Your task to perform on an android device: install app "Lyft - Rideshare, Bikes, Scooters & Transit" Image 0: 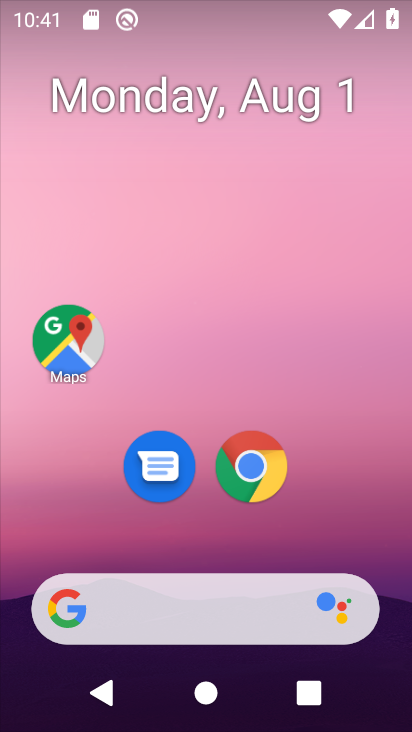
Step 0: drag from (241, 687) to (240, 294)
Your task to perform on an android device: install app "Lyft - Rideshare, Bikes, Scooters & Transit" Image 1: 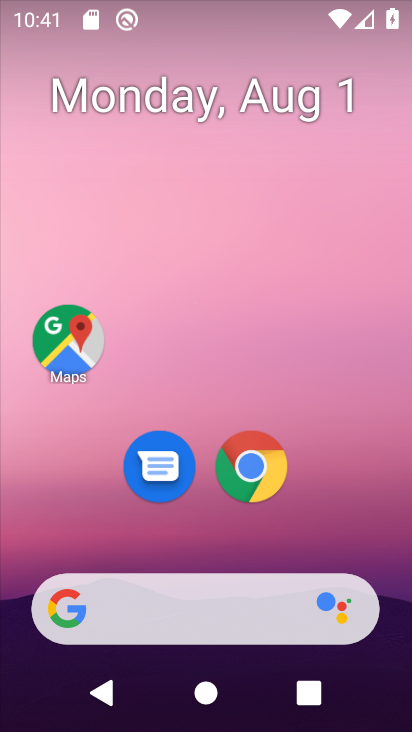
Step 1: drag from (235, 703) to (237, 53)
Your task to perform on an android device: install app "Lyft - Rideshare, Bikes, Scooters & Transit" Image 2: 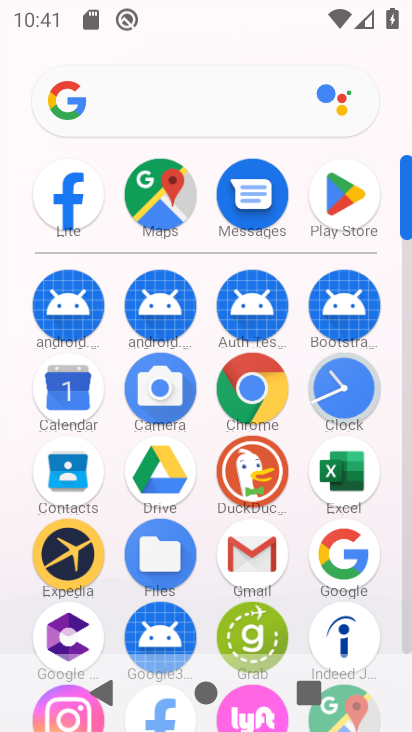
Step 2: click (351, 204)
Your task to perform on an android device: install app "Lyft - Rideshare, Bikes, Scooters & Transit" Image 3: 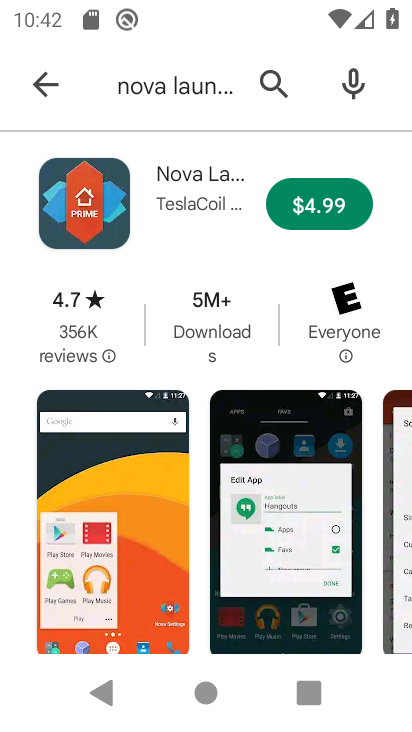
Step 3: click (272, 83)
Your task to perform on an android device: install app "Lyft - Rideshare, Bikes, Scooters & Transit" Image 4: 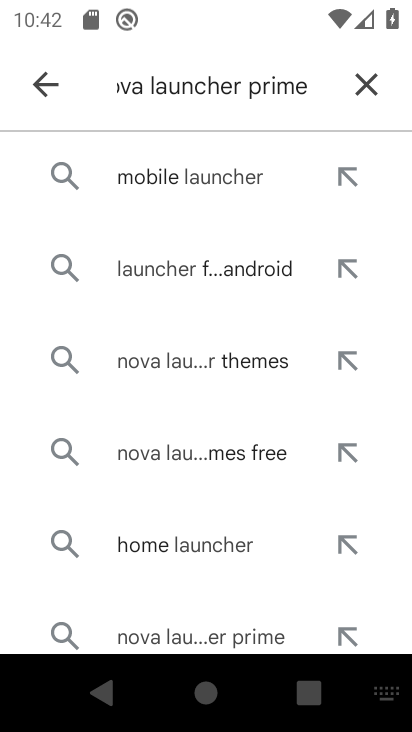
Step 4: click (365, 66)
Your task to perform on an android device: install app "Lyft - Rideshare, Bikes, Scooters & Transit" Image 5: 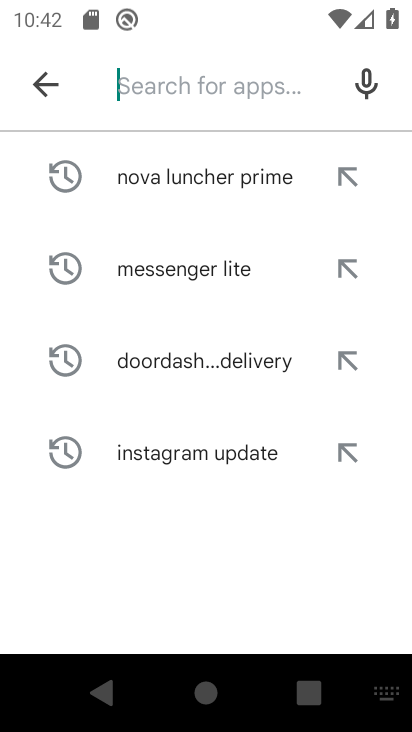
Step 5: type "Lyft - Rideshare, Bikes, Scooters & Transit"
Your task to perform on an android device: install app "Lyft - Rideshare, Bikes, Scooters & Transit" Image 6: 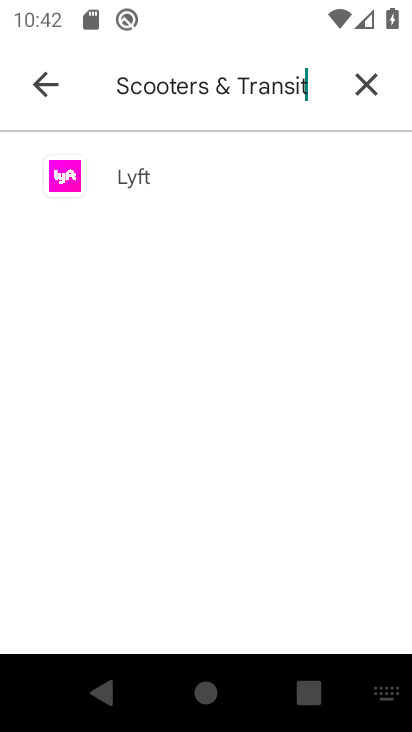
Step 6: type ""
Your task to perform on an android device: install app "Lyft - Rideshare, Bikes, Scooters & Transit" Image 7: 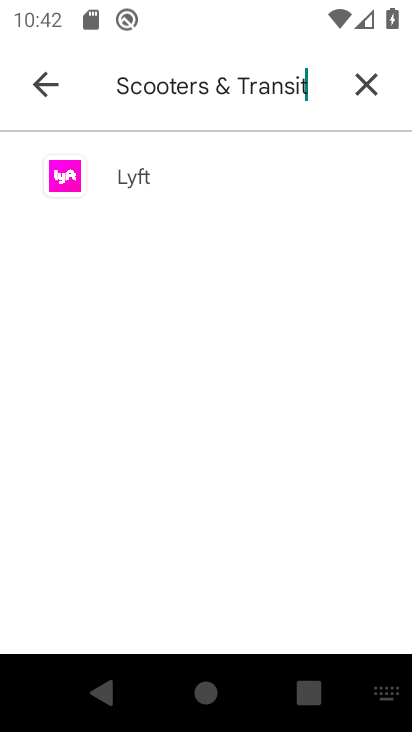
Step 7: click (129, 175)
Your task to perform on an android device: install app "Lyft - Rideshare, Bikes, Scooters & Transit" Image 8: 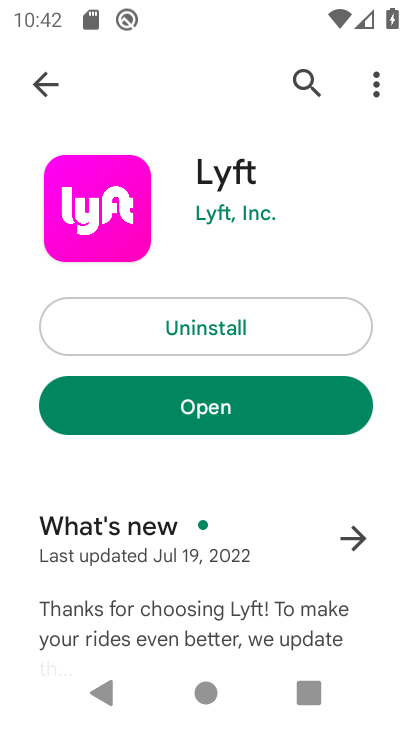
Step 8: task complete